Your task to perform on an android device: Open my contact list Image 0: 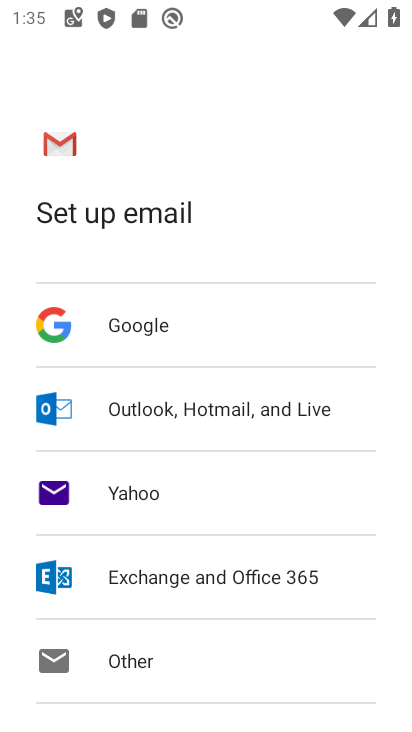
Step 0: press home button
Your task to perform on an android device: Open my contact list Image 1: 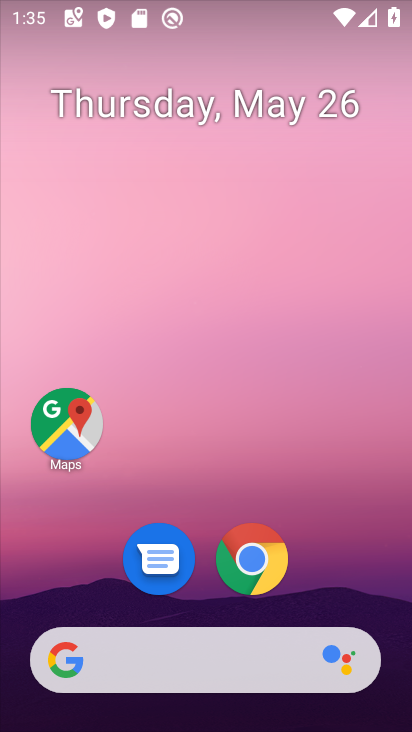
Step 1: drag from (170, 640) to (287, 200)
Your task to perform on an android device: Open my contact list Image 2: 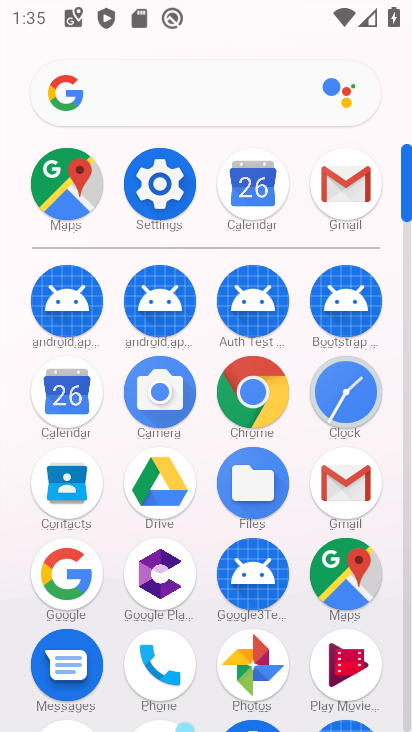
Step 2: click (58, 481)
Your task to perform on an android device: Open my contact list Image 3: 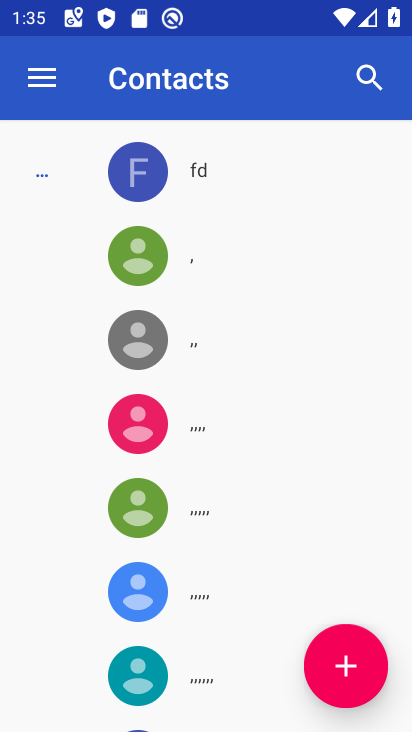
Step 3: task complete